Your task to perform on an android device: change your default location settings in chrome Image 0: 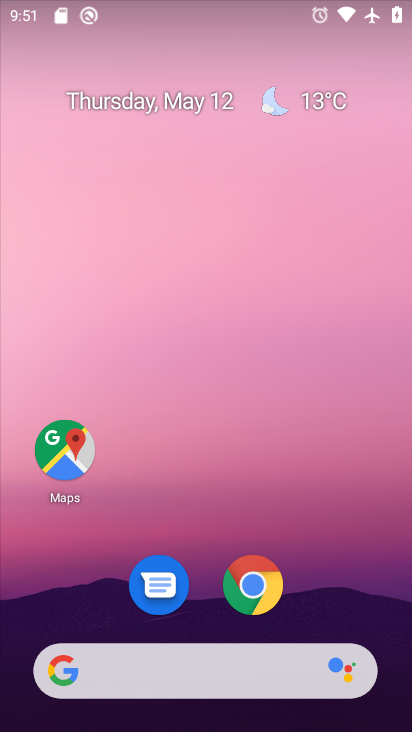
Step 0: click (274, 580)
Your task to perform on an android device: change your default location settings in chrome Image 1: 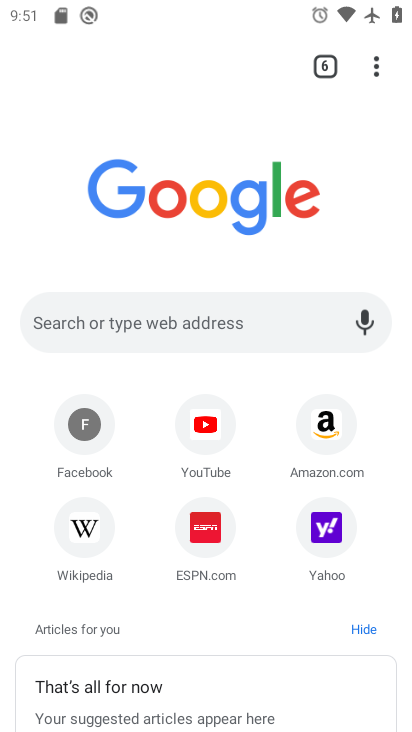
Step 1: click (369, 66)
Your task to perform on an android device: change your default location settings in chrome Image 2: 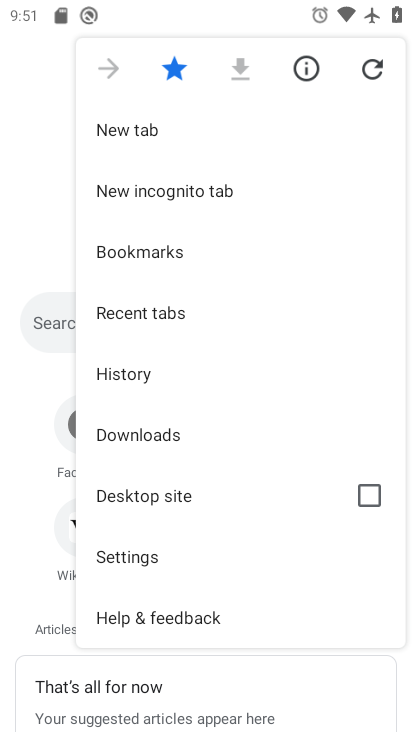
Step 2: click (178, 562)
Your task to perform on an android device: change your default location settings in chrome Image 3: 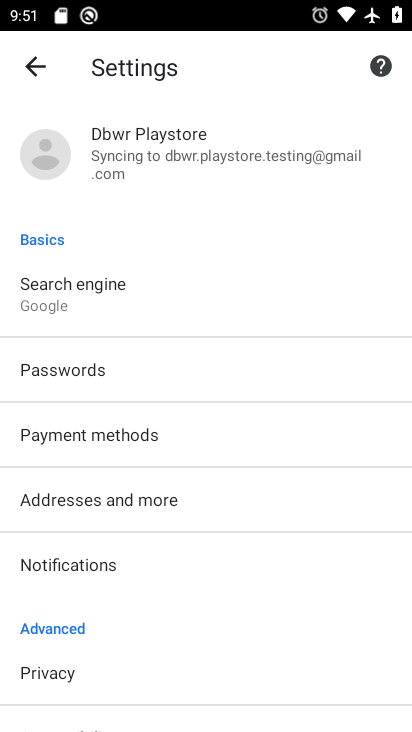
Step 3: drag from (229, 530) to (215, 249)
Your task to perform on an android device: change your default location settings in chrome Image 4: 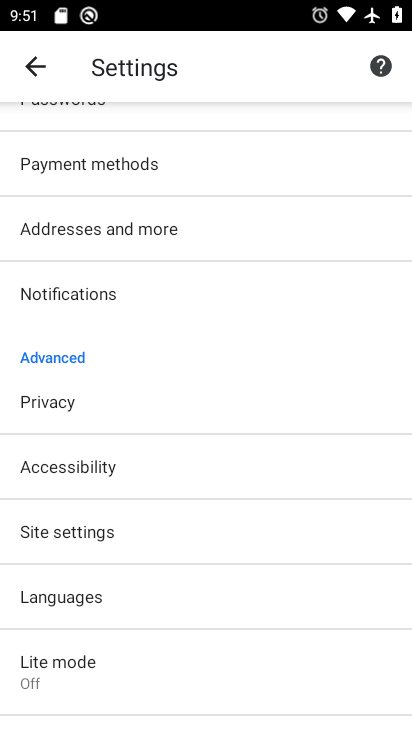
Step 4: click (148, 532)
Your task to perform on an android device: change your default location settings in chrome Image 5: 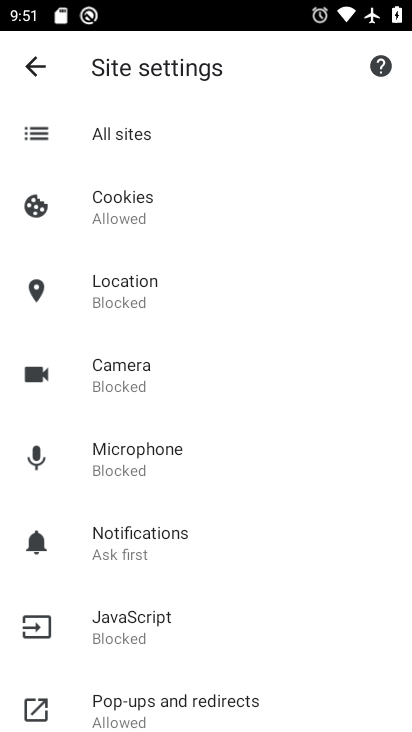
Step 5: click (165, 289)
Your task to perform on an android device: change your default location settings in chrome Image 6: 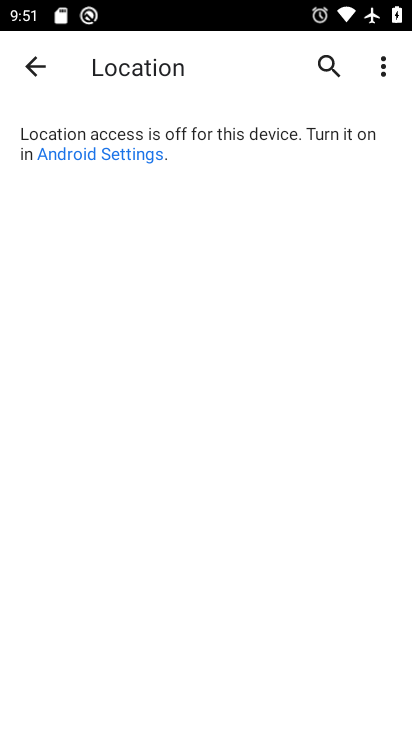
Step 6: click (143, 148)
Your task to perform on an android device: change your default location settings in chrome Image 7: 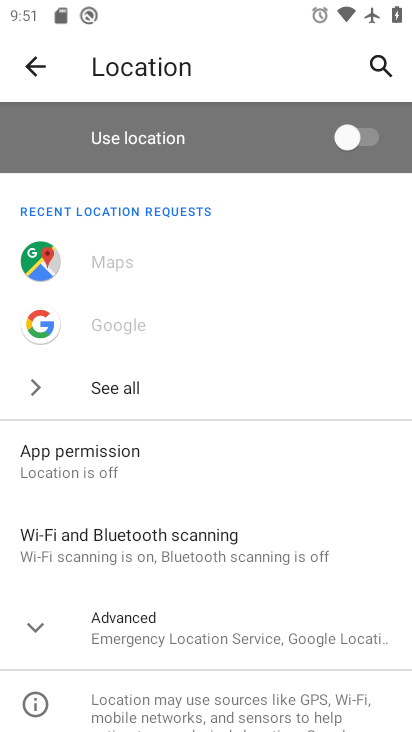
Step 7: click (352, 136)
Your task to perform on an android device: change your default location settings in chrome Image 8: 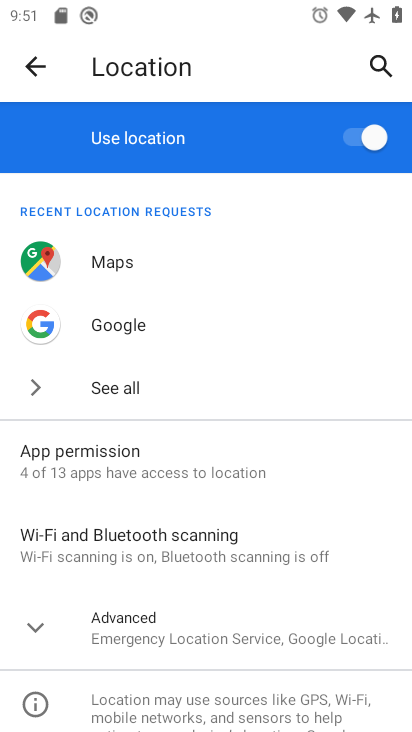
Step 8: click (32, 54)
Your task to perform on an android device: change your default location settings in chrome Image 9: 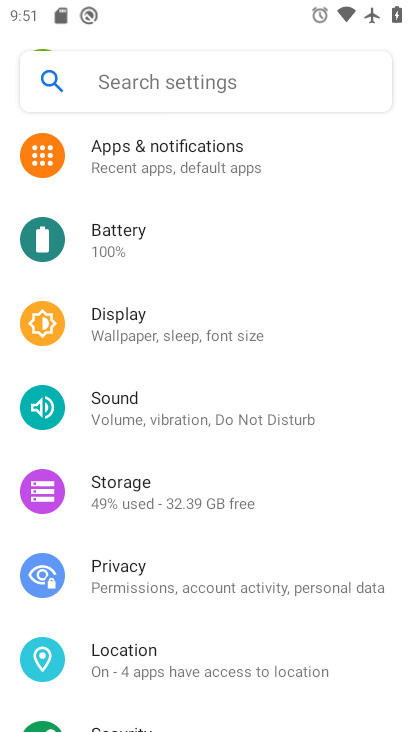
Step 9: task complete